Your task to perform on an android device: Turn on the flashlight Image 0: 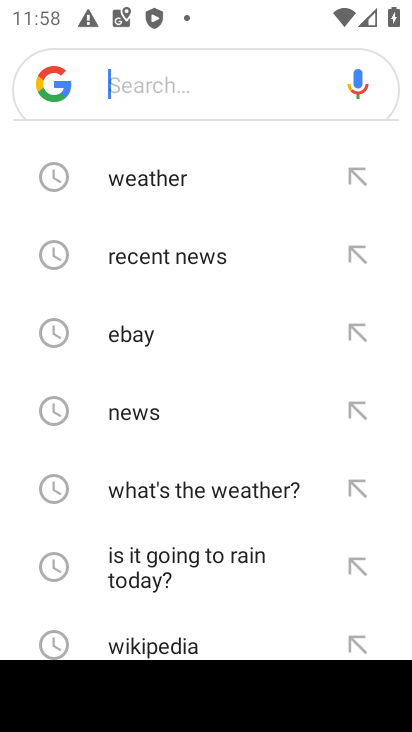
Step 0: press home button
Your task to perform on an android device: Turn on the flashlight Image 1: 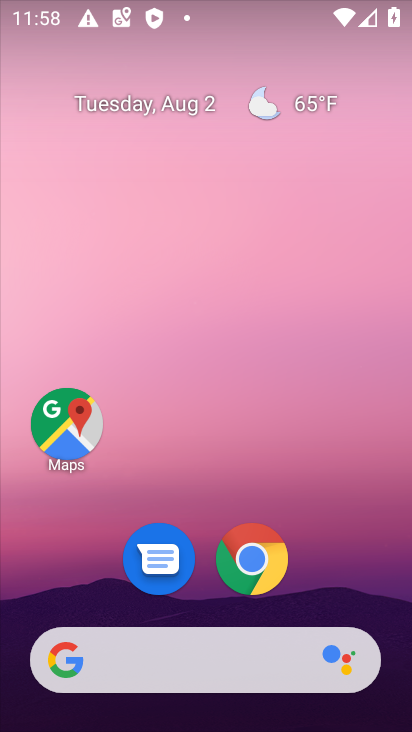
Step 1: drag from (211, 612) to (233, 169)
Your task to perform on an android device: Turn on the flashlight Image 2: 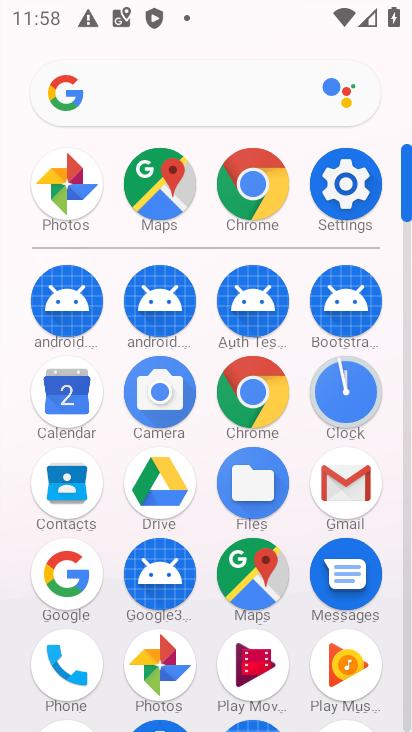
Step 2: click (344, 189)
Your task to perform on an android device: Turn on the flashlight Image 3: 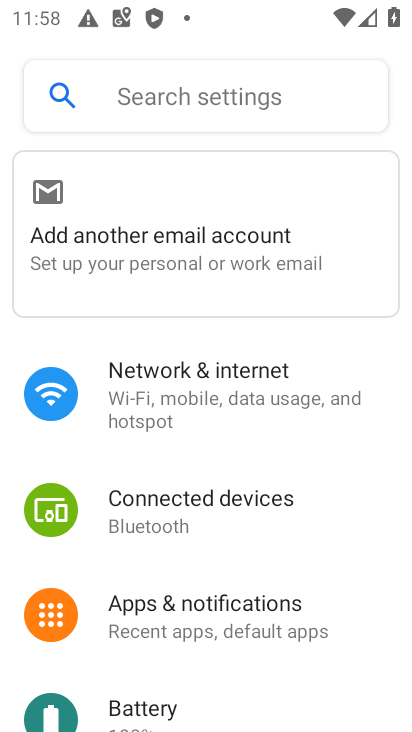
Step 3: task complete